Your task to perform on an android device: Go to Google Image 0: 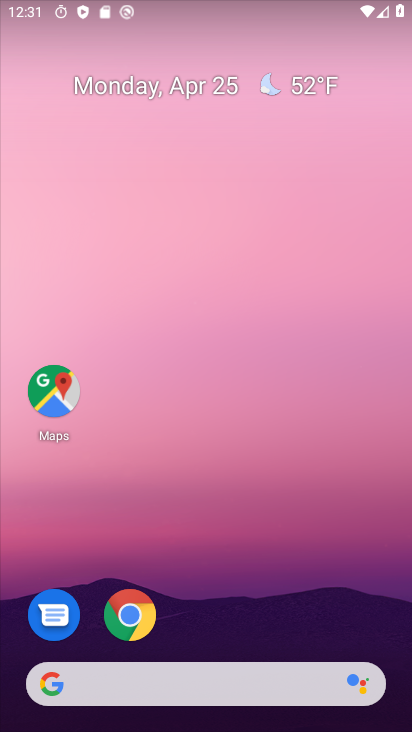
Step 0: click (208, 673)
Your task to perform on an android device: Go to Google Image 1: 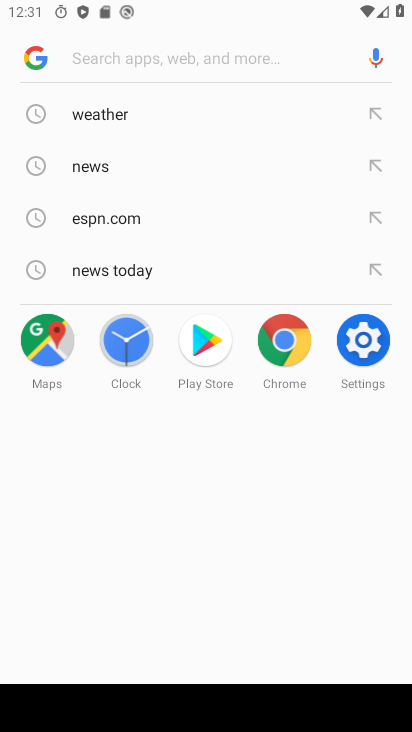
Step 1: task complete